Your task to perform on an android device: Open Yahoo.com Image 0: 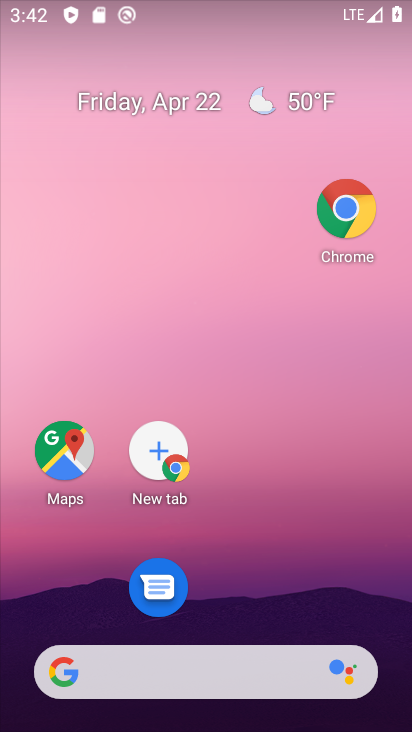
Step 0: click (350, 209)
Your task to perform on an android device: Open Yahoo.com Image 1: 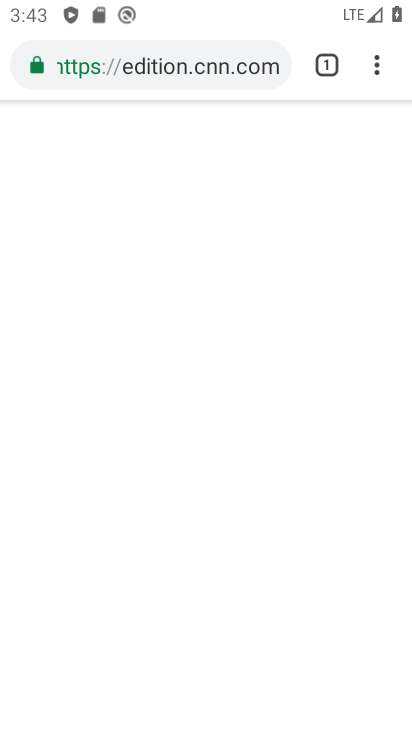
Step 1: click (325, 67)
Your task to perform on an android device: Open Yahoo.com Image 2: 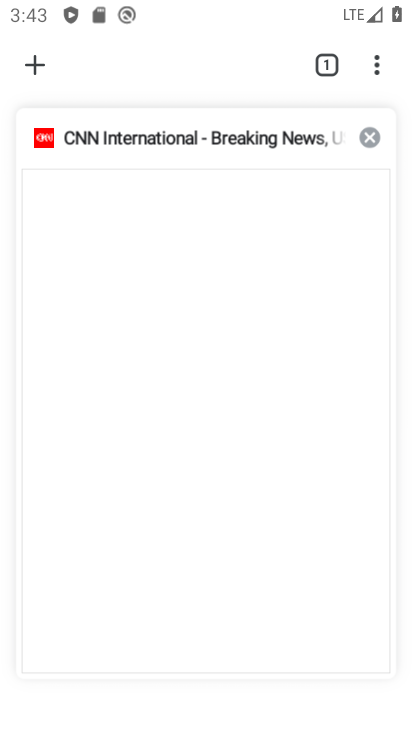
Step 2: click (23, 69)
Your task to perform on an android device: Open Yahoo.com Image 3: 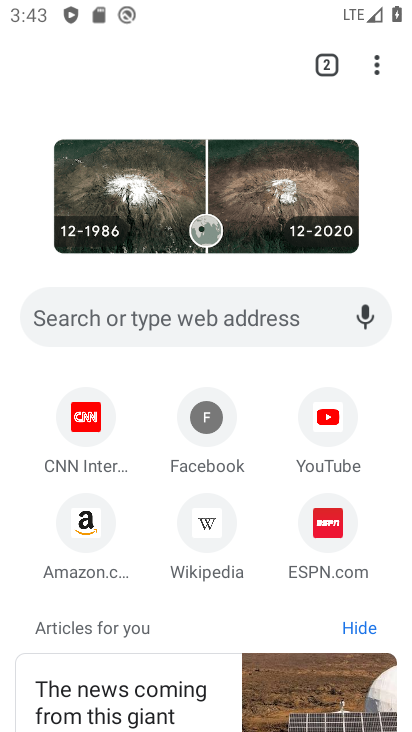
Step 3: click (185, 312)
Your task to perform on an android device: Open Yahoo.com Image 4: 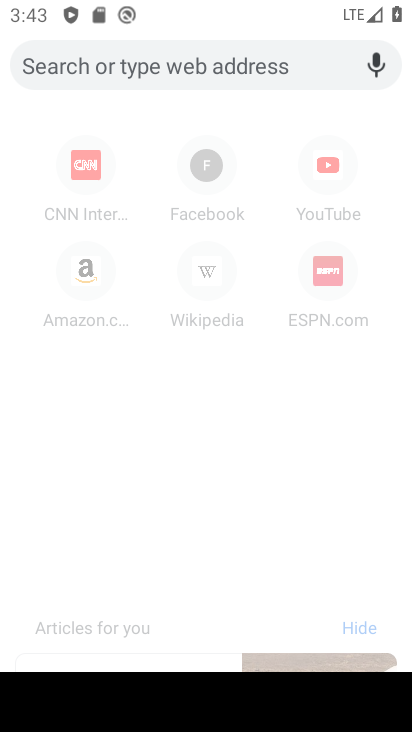
Step 4: type "yahoo.com"
Your task to perform on an android device: Open Yahoo.com Image 5: 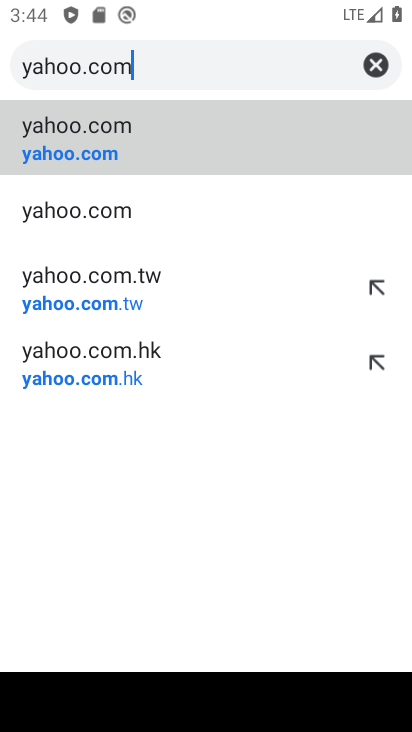
Step 5: click (204, 144)
Your task to perform on an android device: Open Yahoo.com Image 6: 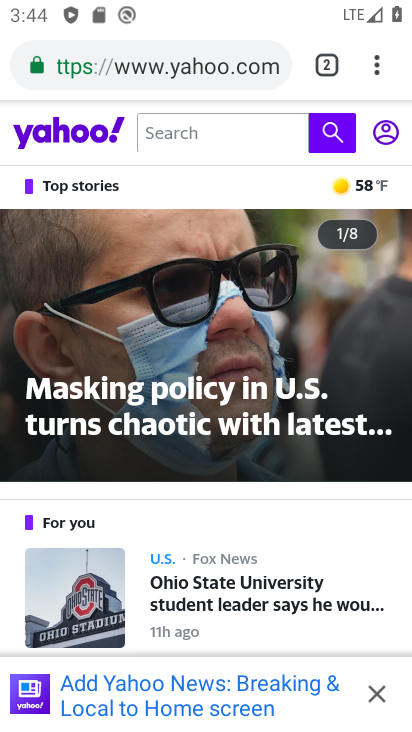
Step 6: task complete